Your task to perform on an android device: Open Wikipedia Image 0: 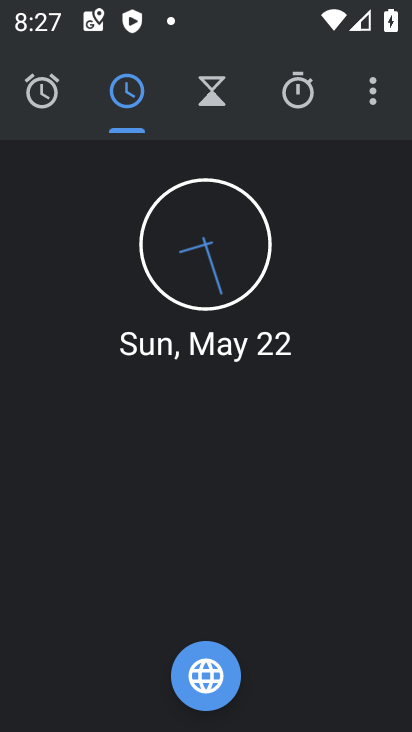
Step 0: press home button
Your task to perform on an android device: Open Wikipedia Image 1: 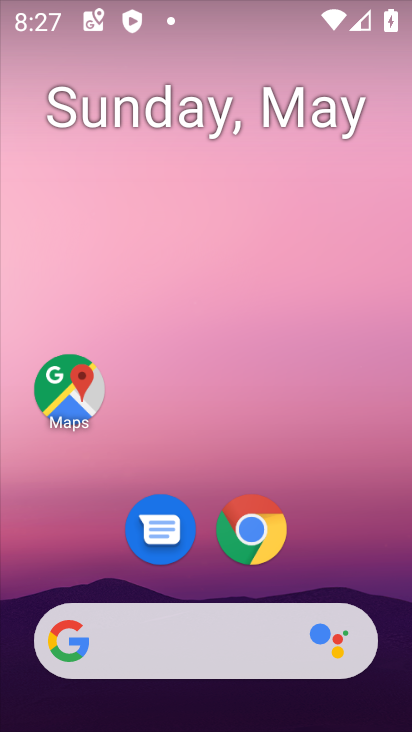
Step 1: click (252, 542)
Your task to perform on an android device: Open Wikipedia Image 2: 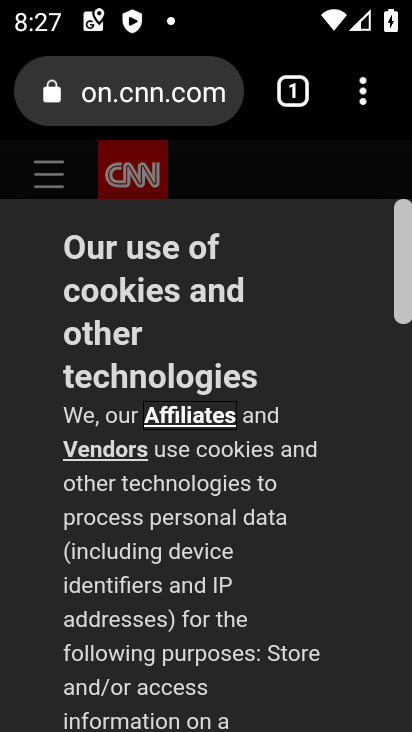
Step 2: click (165, 93)
Your task to perform on an android device: Open Wikipedia Image 3: 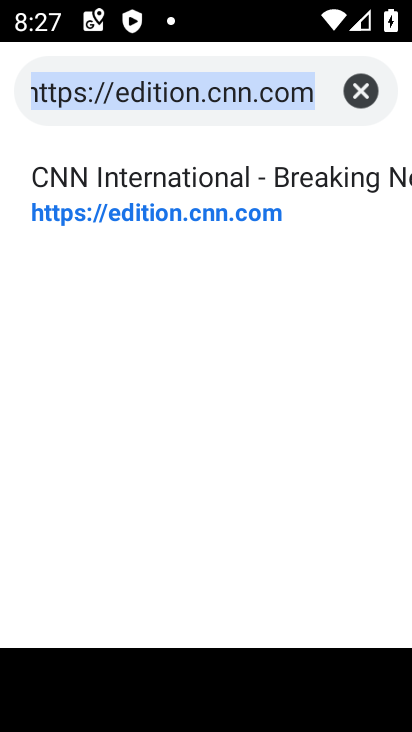
Step 3: click (356, 94)
Your task to perform on an android device: Open Wikipedia Image 4: 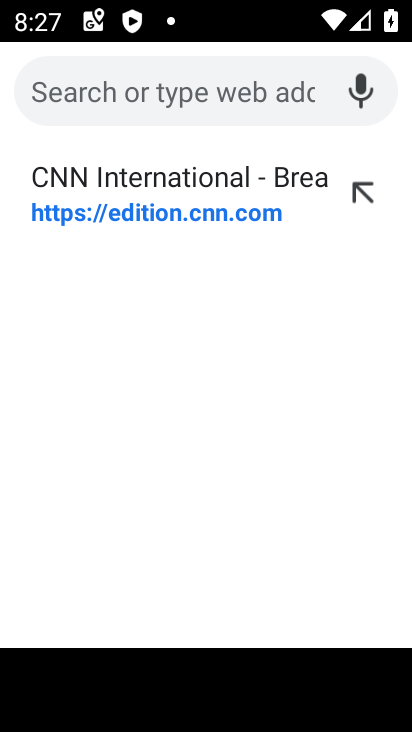
Step 4: click (47, 95)
Your task to perform on an android device: Open Wikipedia Image 5: 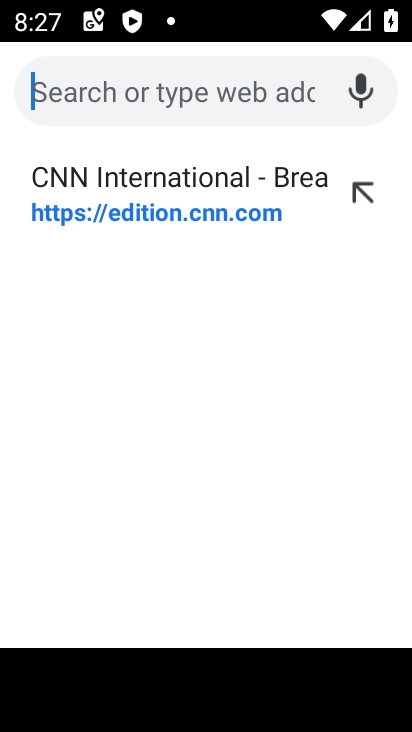
Step 5: type "wikipedia"
Your task to perform on an android device: Open Wikipedia Image 6: 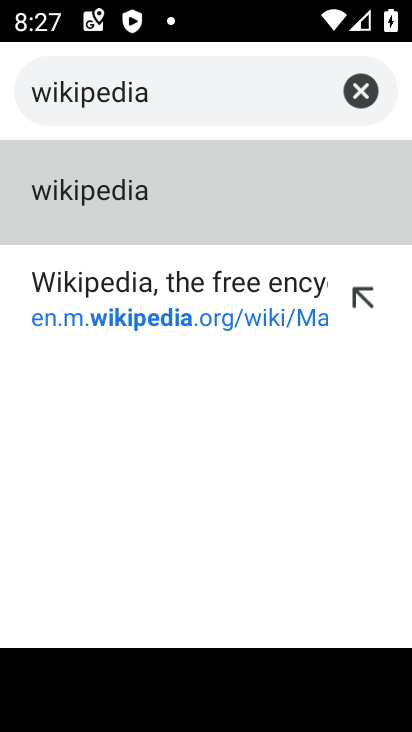
Step 6: click (102, 193)
Your task to perform on an android device: Open Wikipedia Image 7: 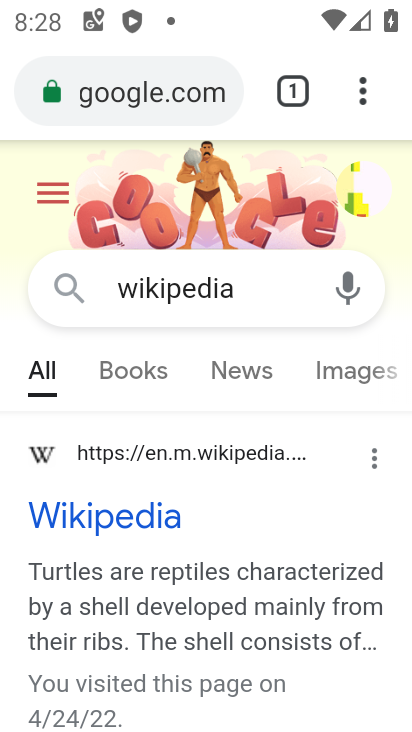
Step 7: click (76, 459)
Your task to perform on an android device: Open Wikipedia Image 8: 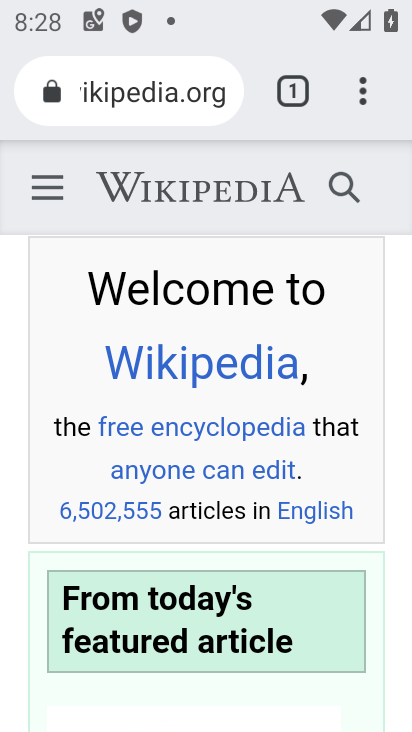
Step 8: task complete